Your task to perform on an android device: Open the map Image 0: 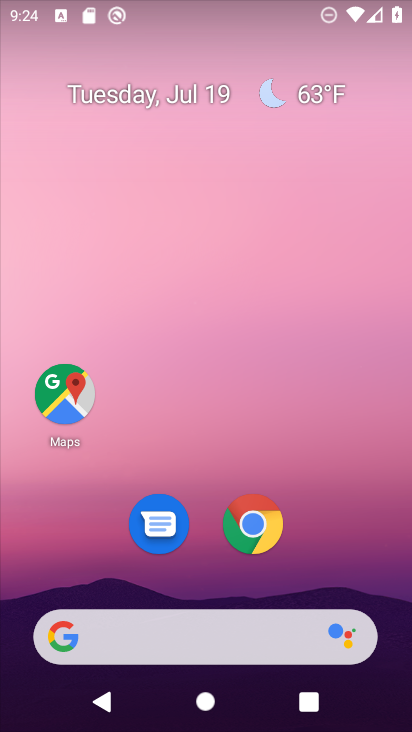
Step 0: click (54, 395)
Your task to perform on an android device: Open the map Image 1: 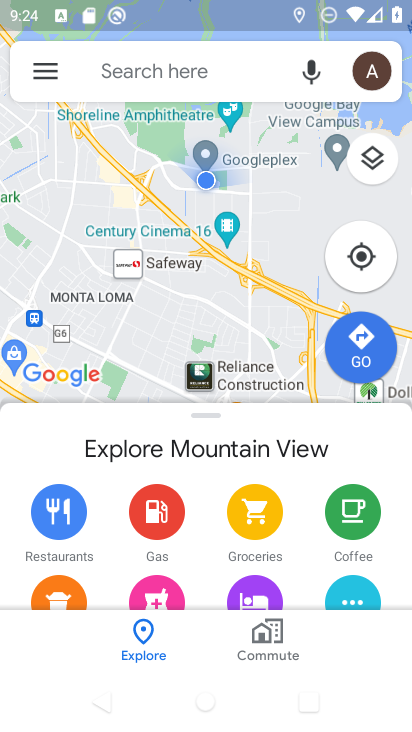
Step 1: task complete